Your task to perform on an android device: open app "Expedia: Hotels, Flights & Car" (install if not already installed) and go to login screen Image 0: 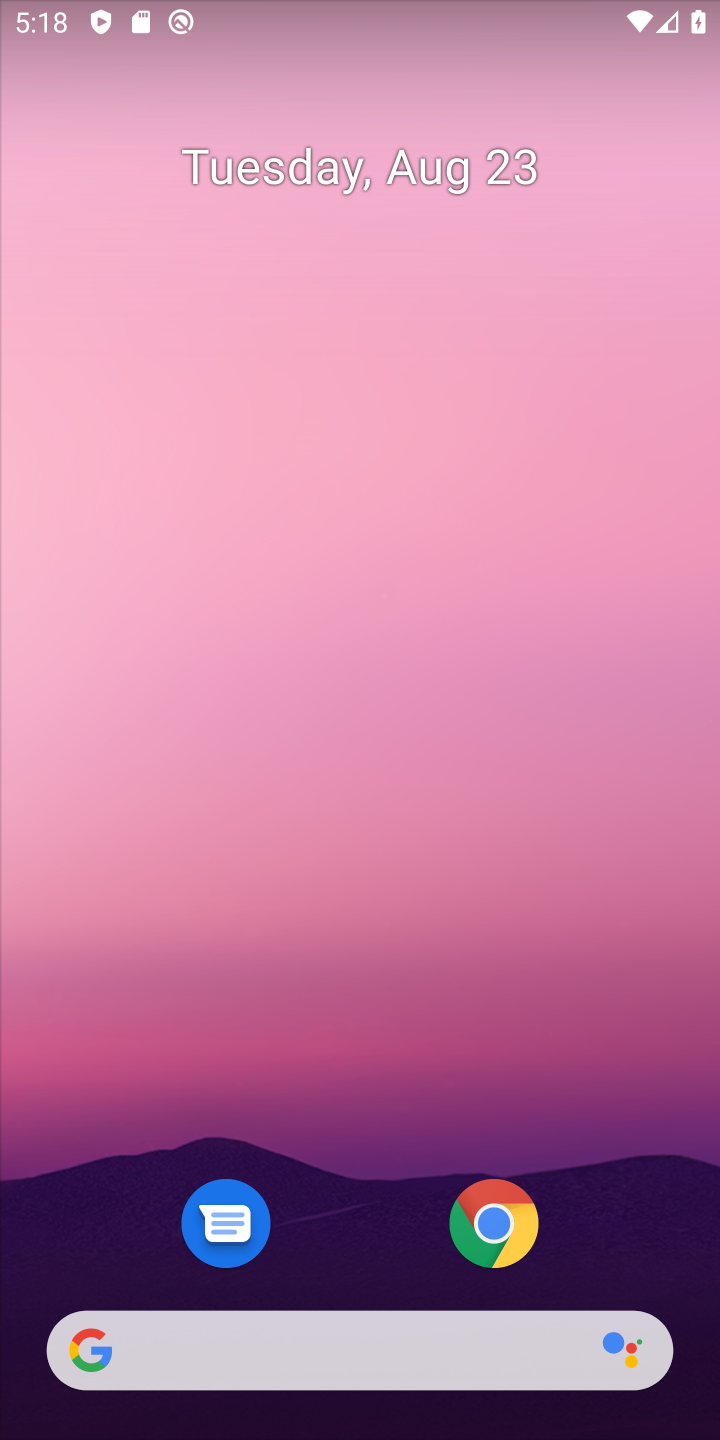
Step 0: drag from (394, 1327) to (415, 76)
Your task to perform on an android device: open app "Expedia: Hotels, Flights & Car" (install if not already installed) and go to login screen Image 1: 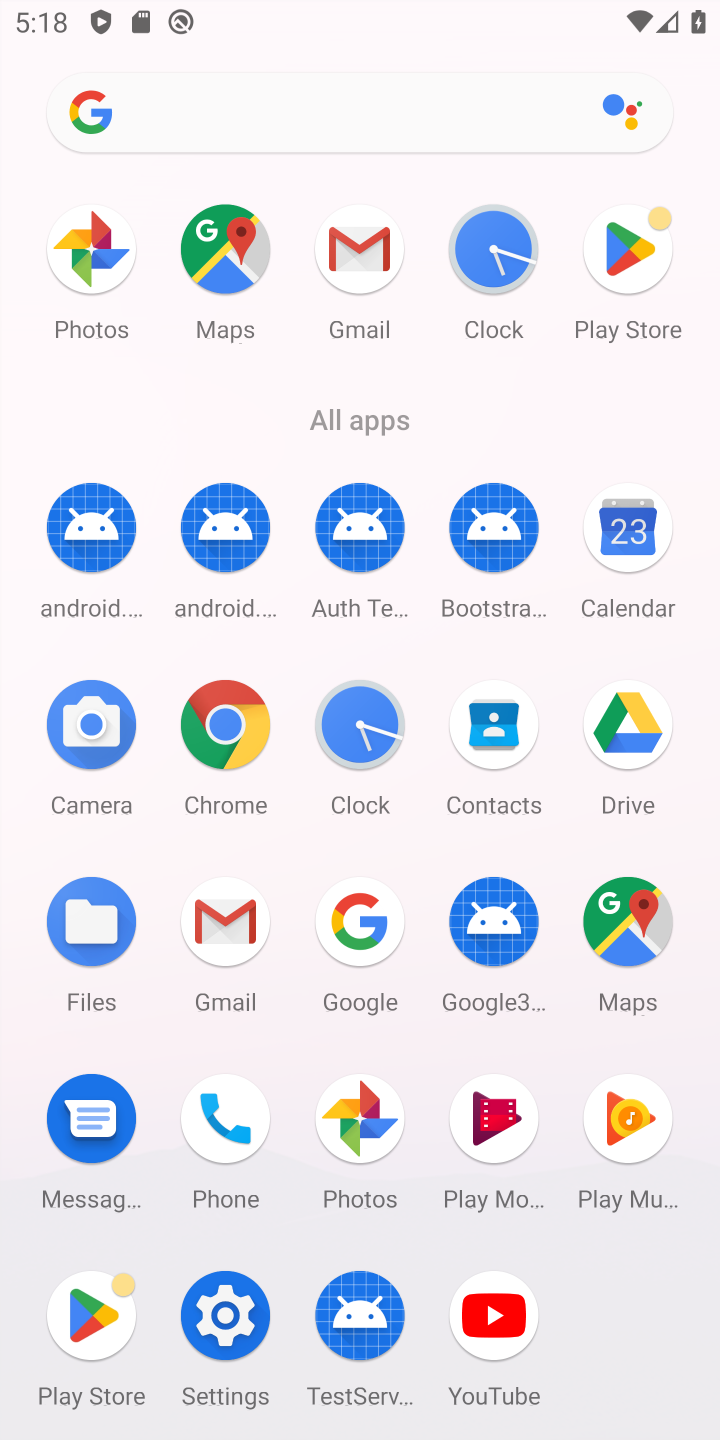
Step 1: click (637, 261)
Your task to perform on an android device: open app "Expedia: Hotels, Flights & Car" (install if not already installed) and go to login screen Image 2: 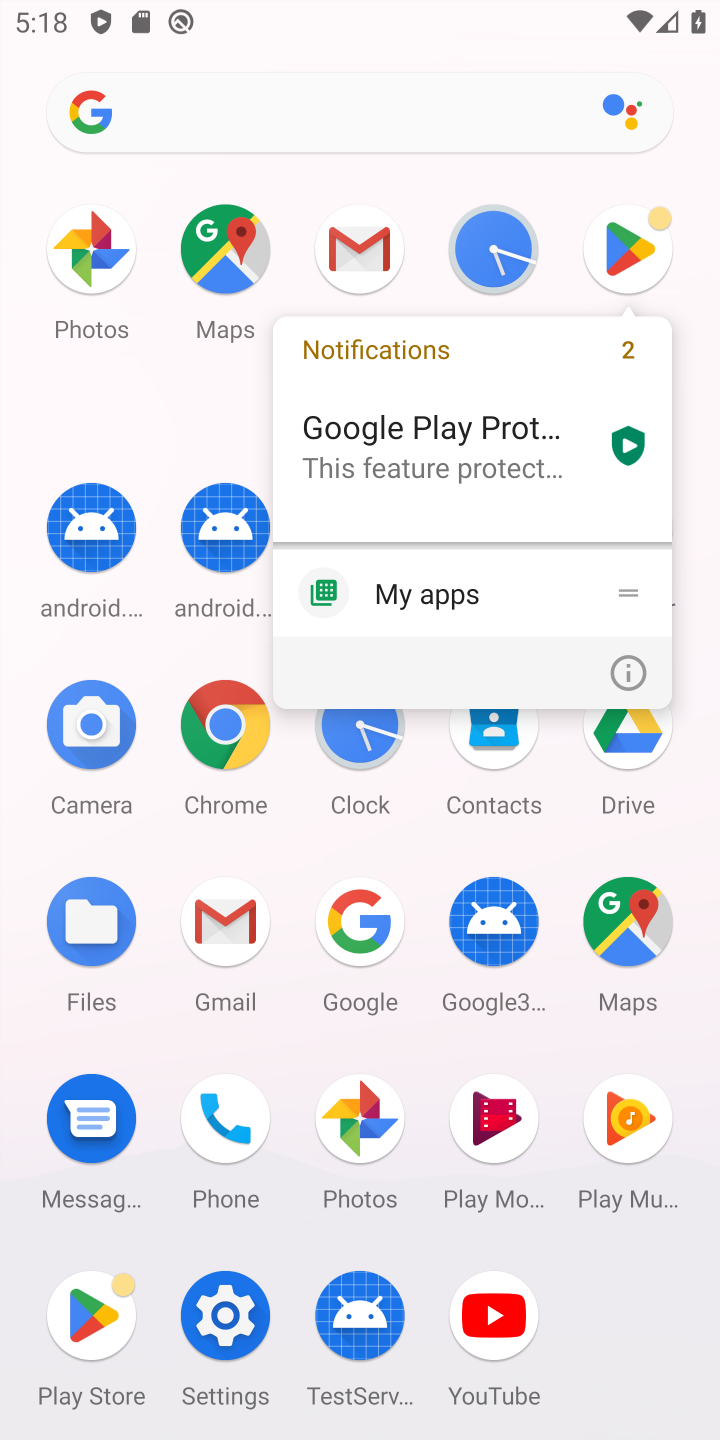
Step 2: click (632, 274)
Your task to perform on an android device: open app "Expedia: Hotels, Flights & Car" (install if not already installed) and go to login screen Image 3: 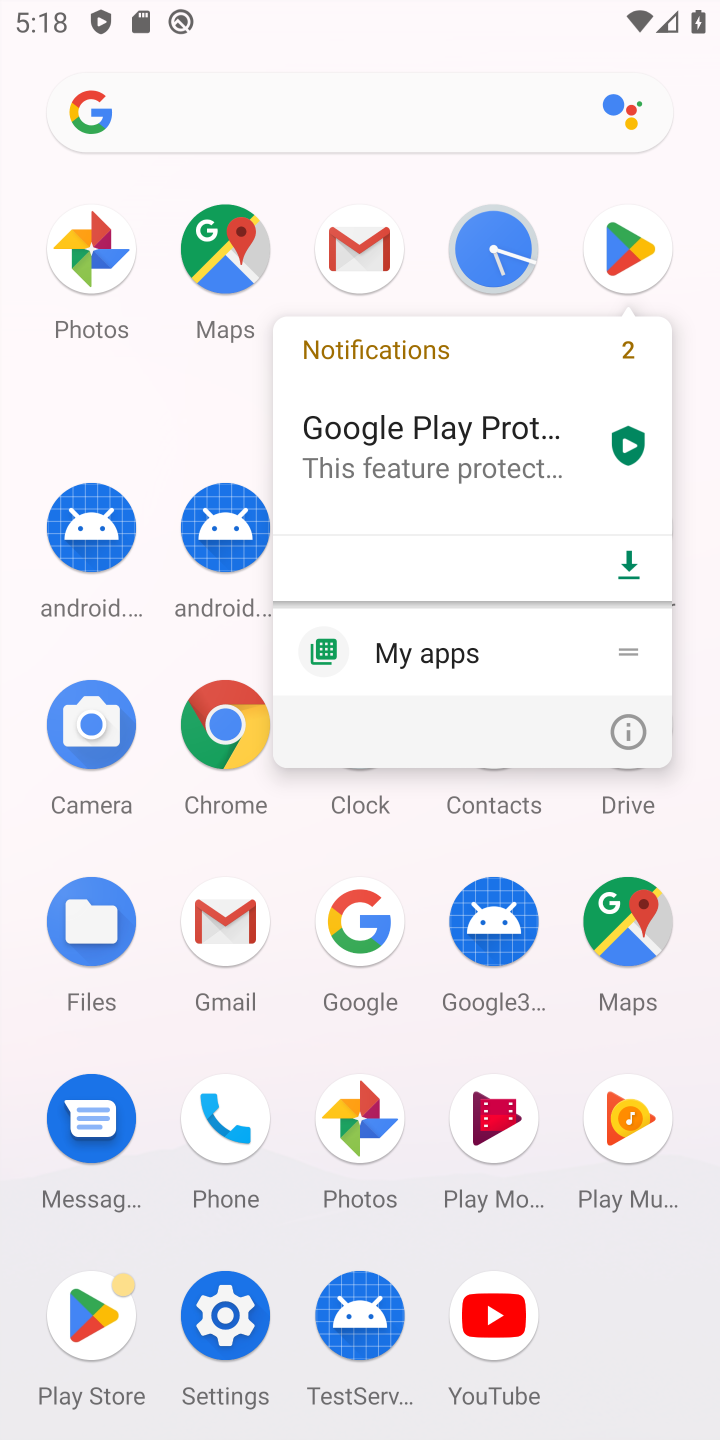
Step 3: click (611, 233)
Your task to perform on an android device: open app "Expedia: Hotels, Flights & Car" (install if not already installed) and go to login screen Image 4: 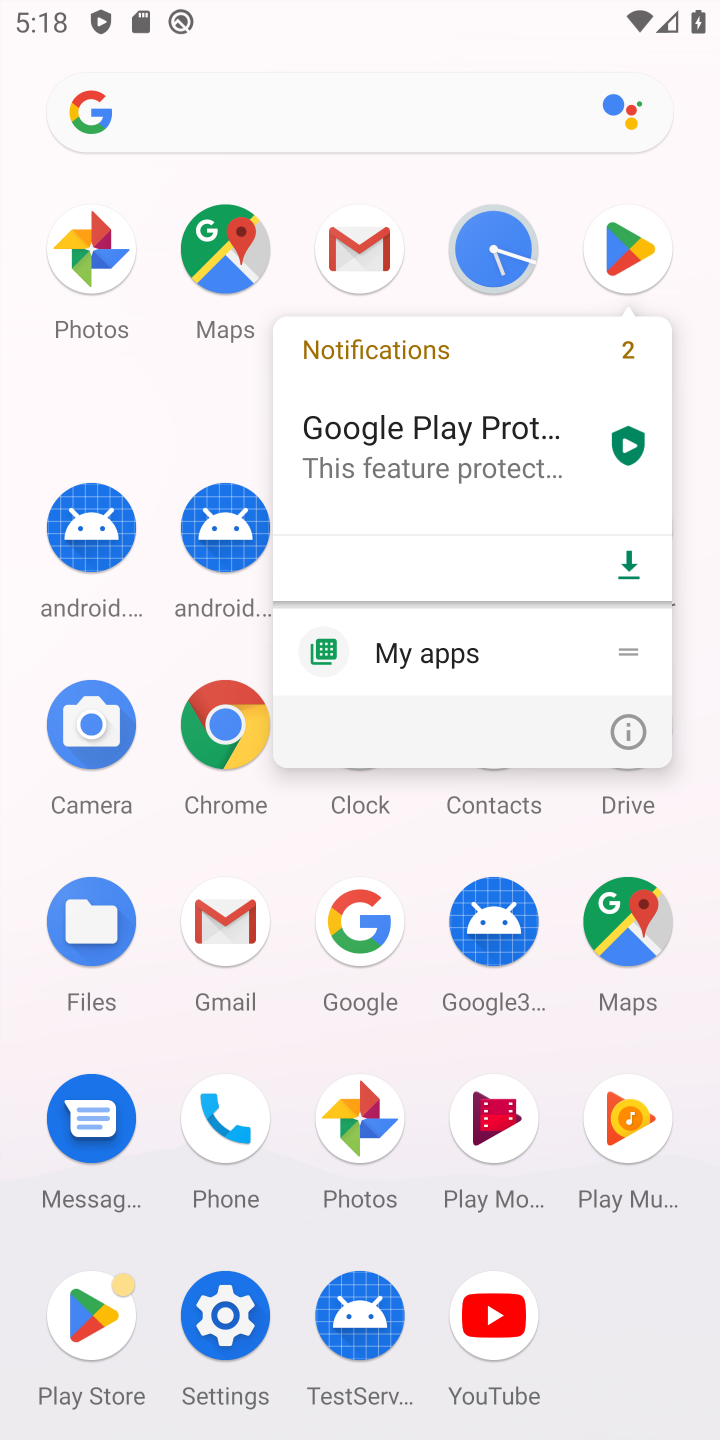
Step 4: click (614, 227)
Your task to perform on an android device: open app "Expedia: Hotels, Flights & Car" (install if not already installed) and go to login screen Image 5: 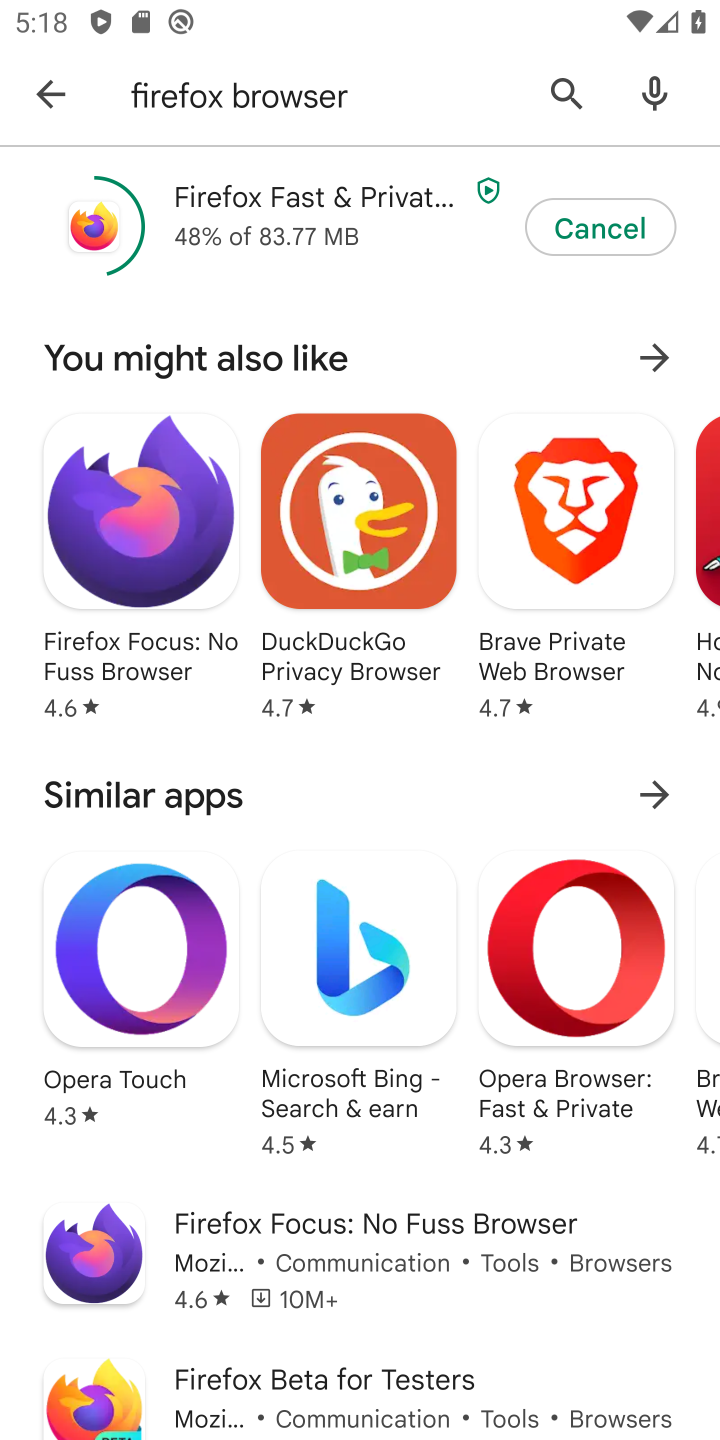
Step 5: click (552, 94)
Your task to perform on an android device: open app "Expedia: Hotels, Flights & Car" (install if not already installed) and go to login screen Image 6: 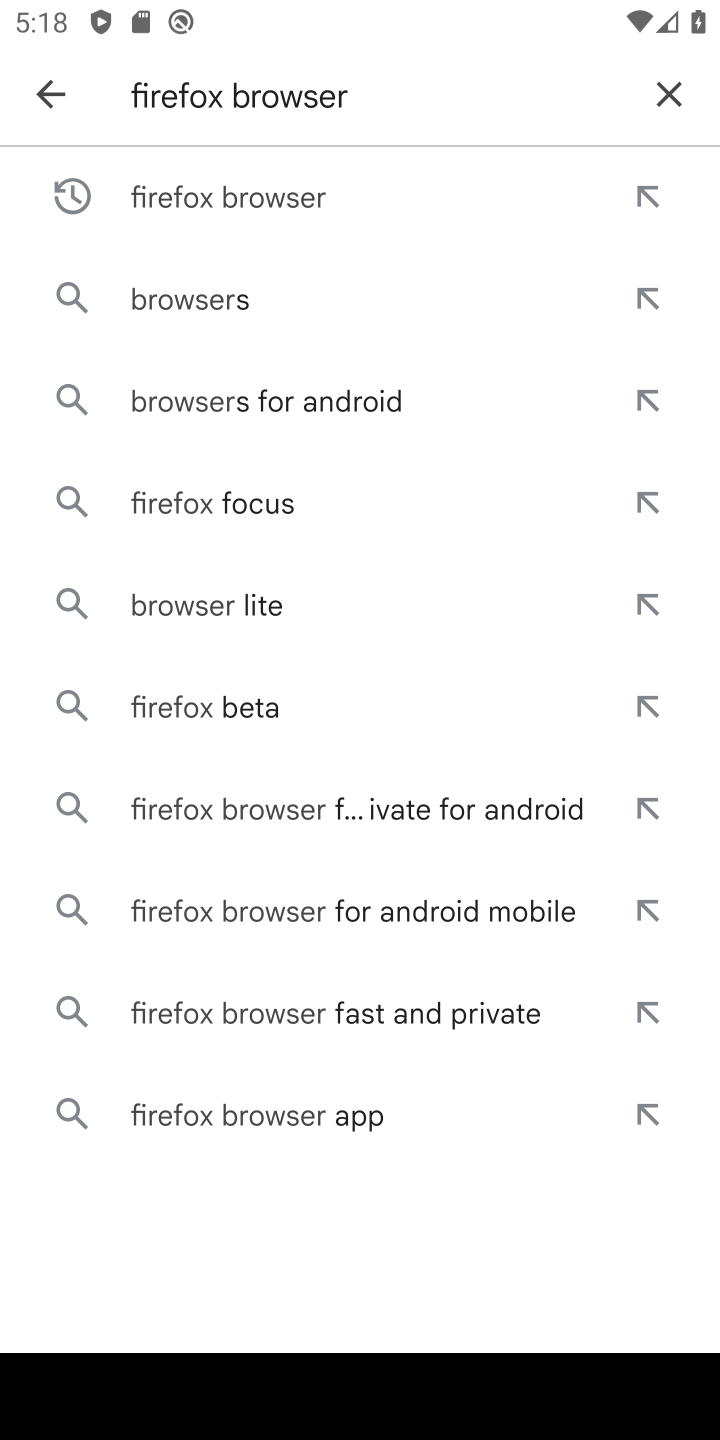
Step 6: click (664, 97)
Your task to perform on an android device: open app "Expedia: Hotels, Flights & Car" (install if not already installed) and go to login screen Image 7: 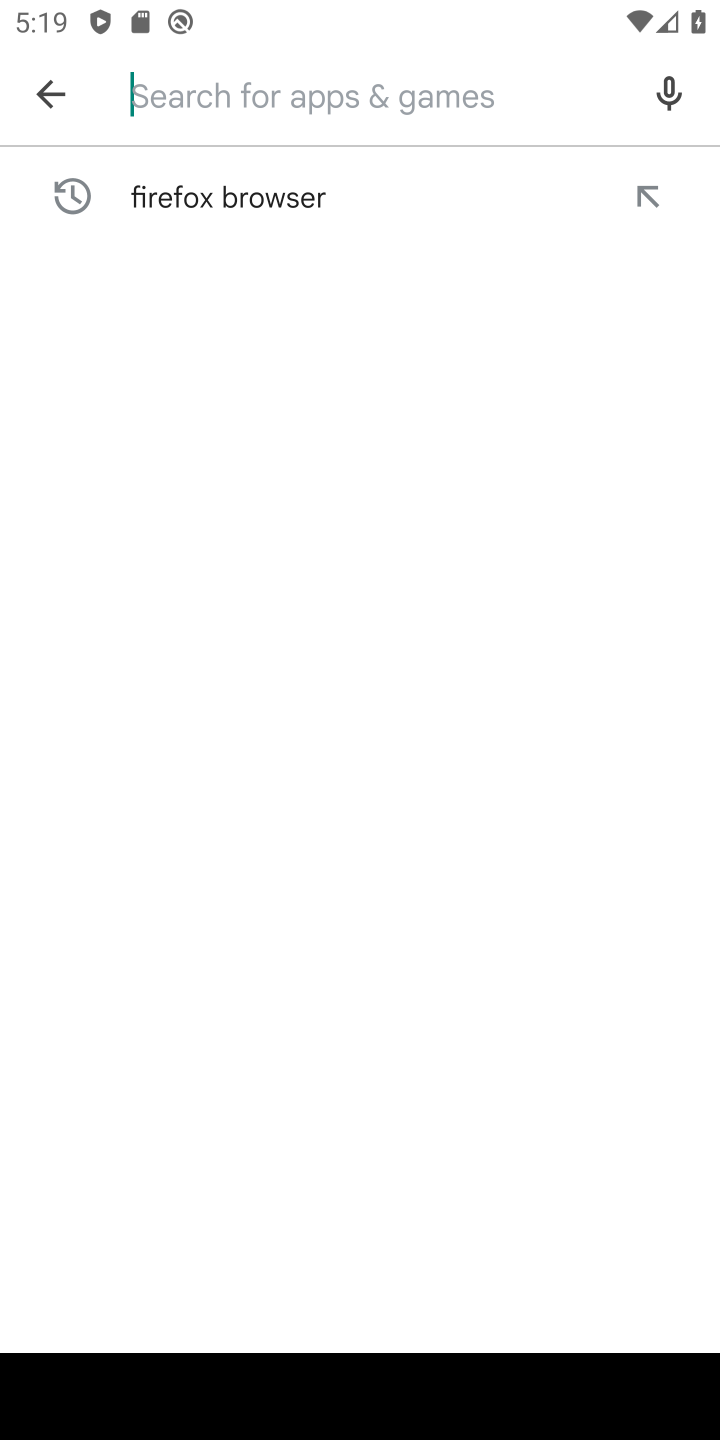
Step 7: type "expedia"
Your task to perform on an android device: open app "Expedia: Hotels, Flights & Car" (install if not already installed) and go to login screen Image 8: 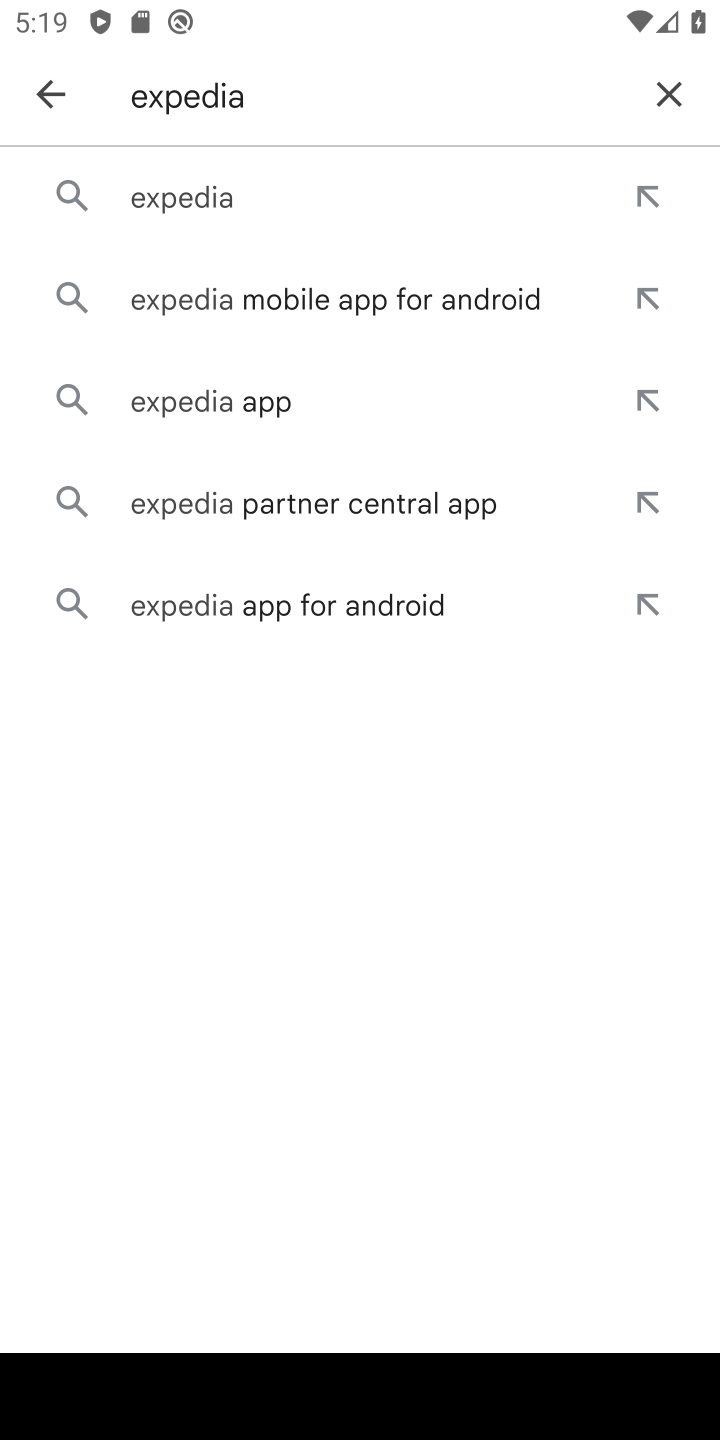
Step 8: click (286, 180)
Your task to perform on an android device: open app "Expedia: Hotels, Flights & Car" (install if not already installed) and go to login screen Image 9: 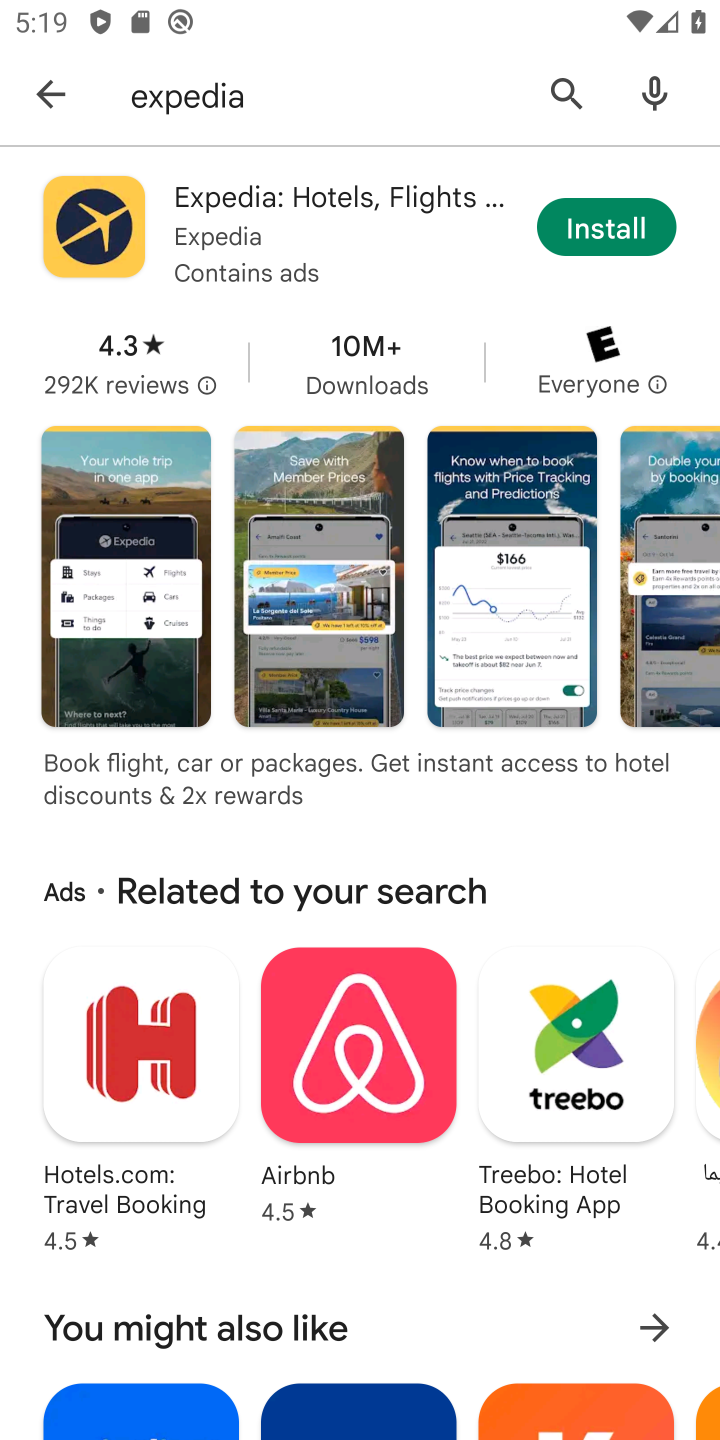
Step 9: click (605, 236)
Your task to perform on an android device: open app "Expedia: Hotels, Flights & Car" (install if not already installed) and go to login screen Image 10: 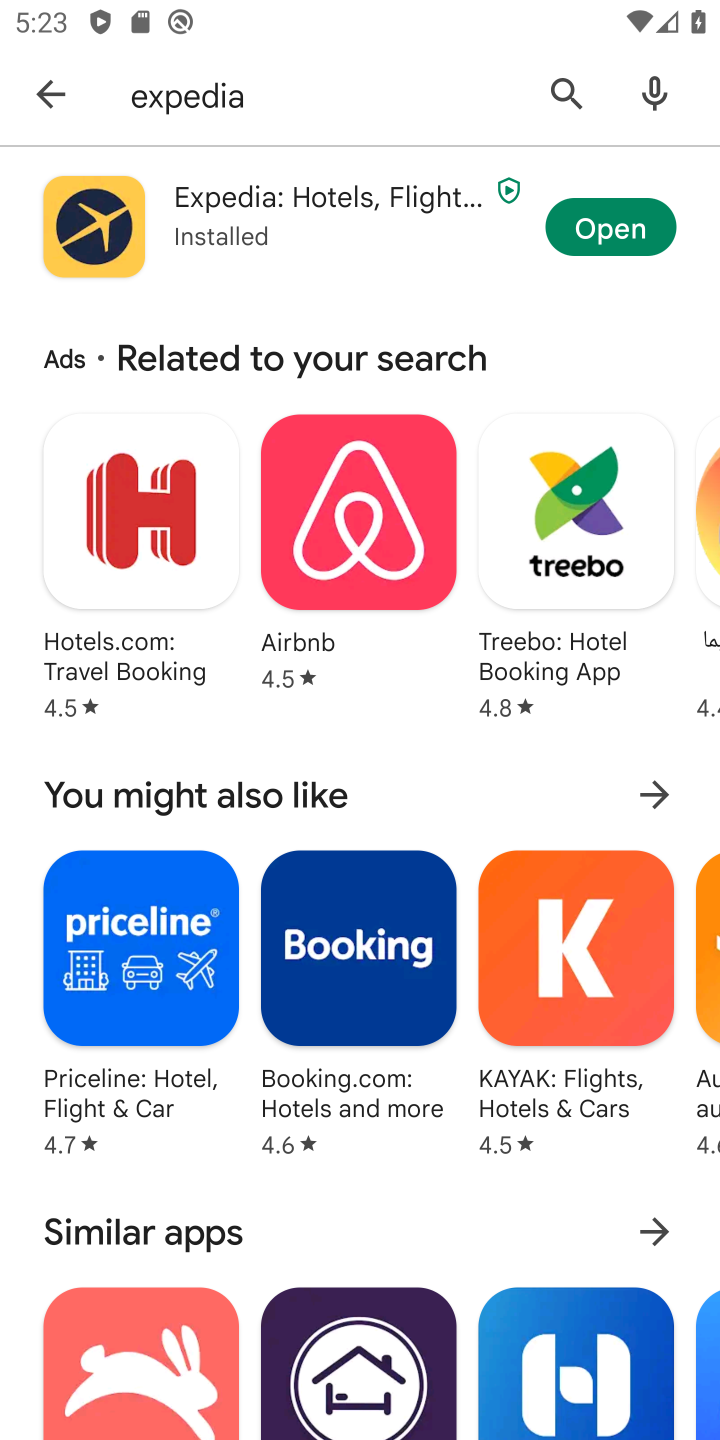
Step 10: click (672, 222)
Your task to perform on an android device: open app "Expedia: Hotels, Flights & Car" (install if not already installed) and go to login screen Image 11: 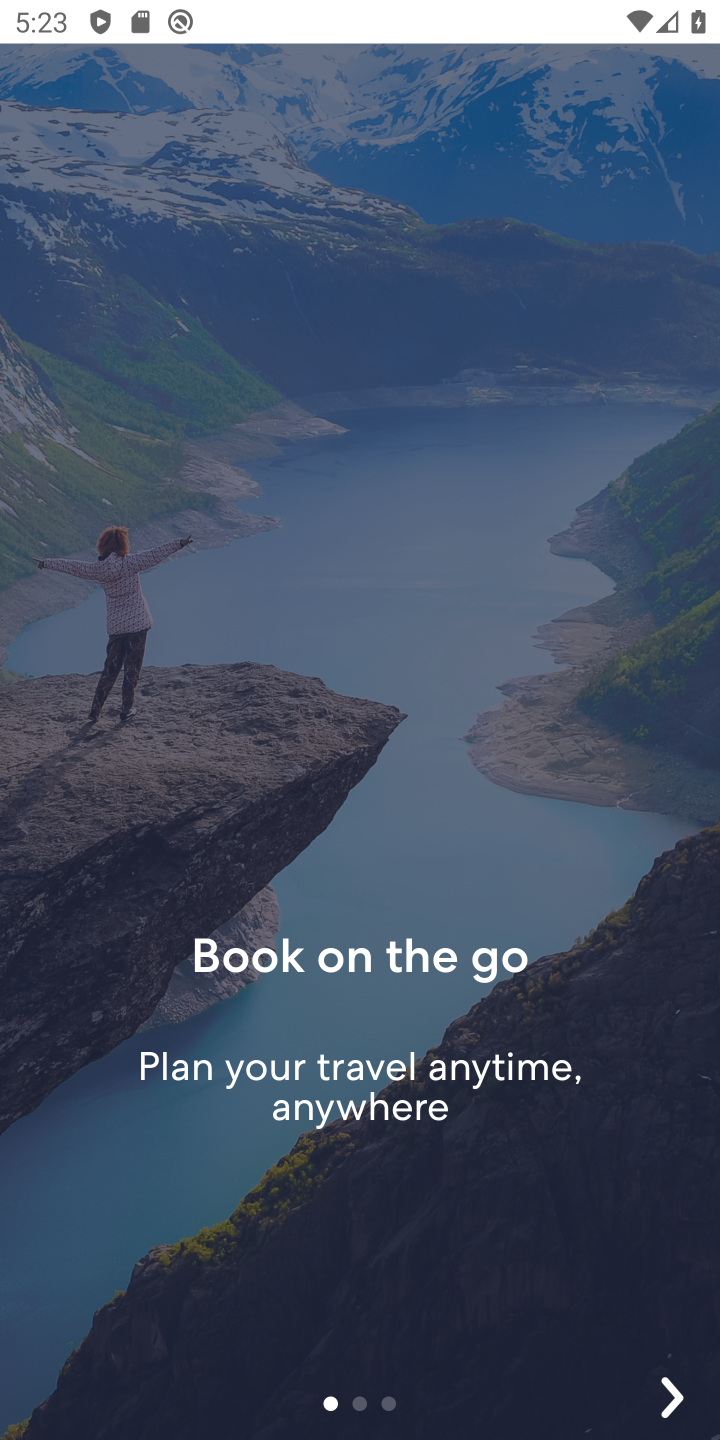
Step 11: click (648, 1412)
Your task to perform on an android device: open app "Expedia: Hotels, Flights & Car" (install if not already installed) and go to login screen Image 12: 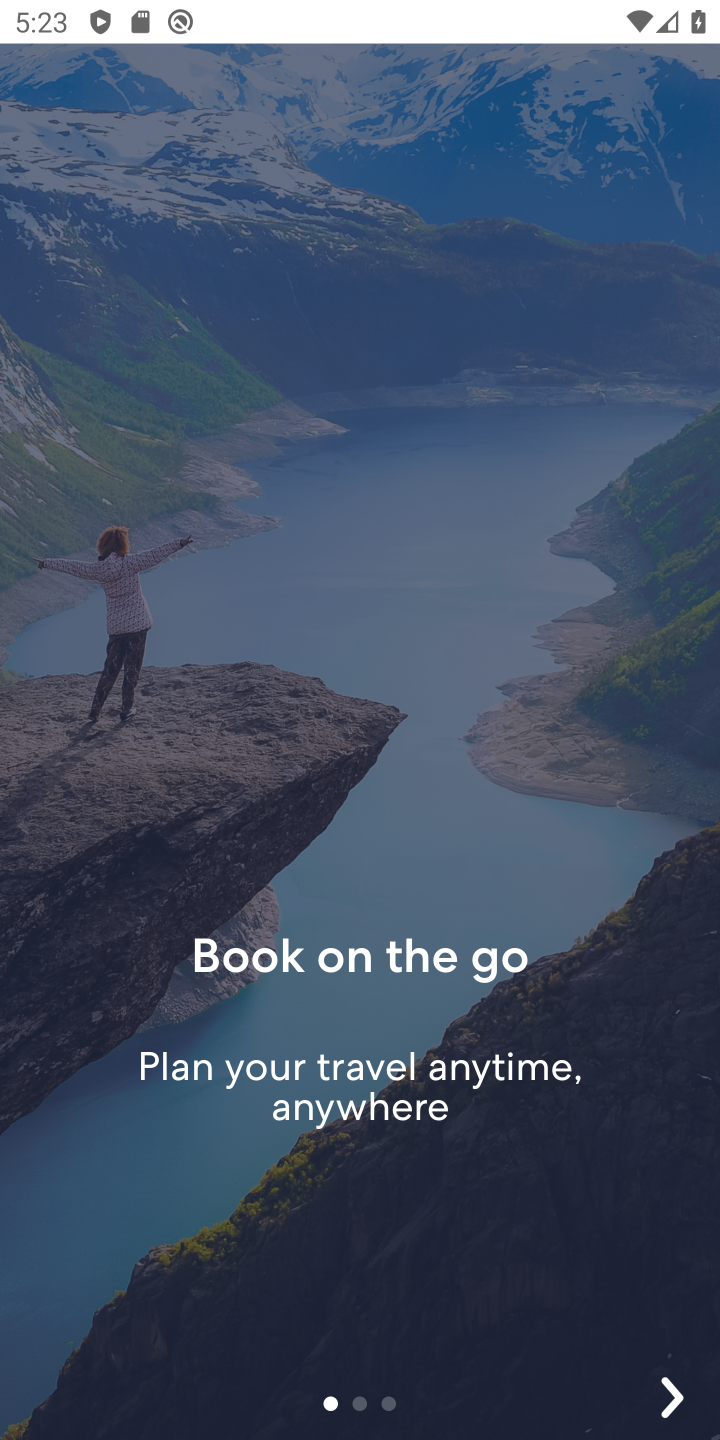
Step 12: click (668, 1407)
Your task to perform on an android device: open app "Expedia: Hotels, Flights & Car" (install if not already installed) and go to login screen Image 13: 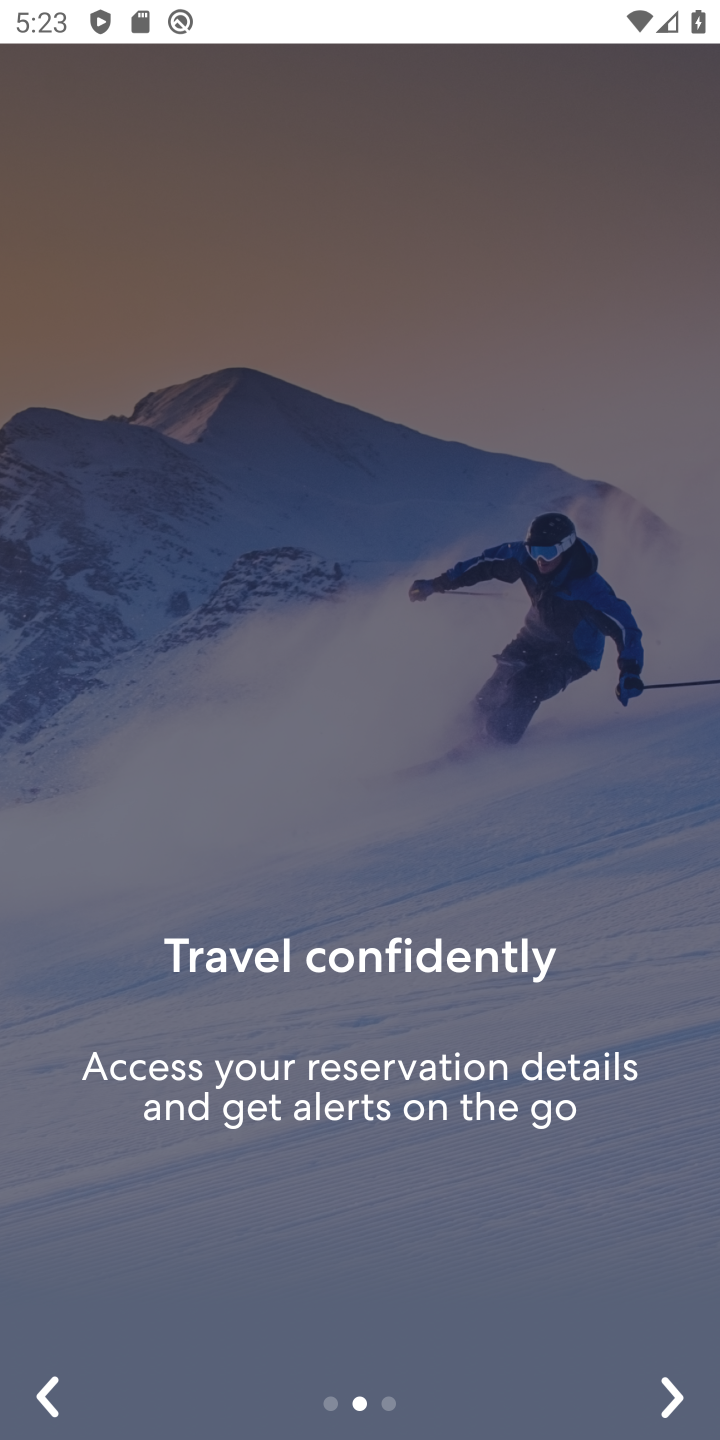
Step 13: click (668, 1407)
Your task to perform on an android device: open app "Expedia: Hotels, Flights & Car" (install if not already installed) and go to login screen Image 14: 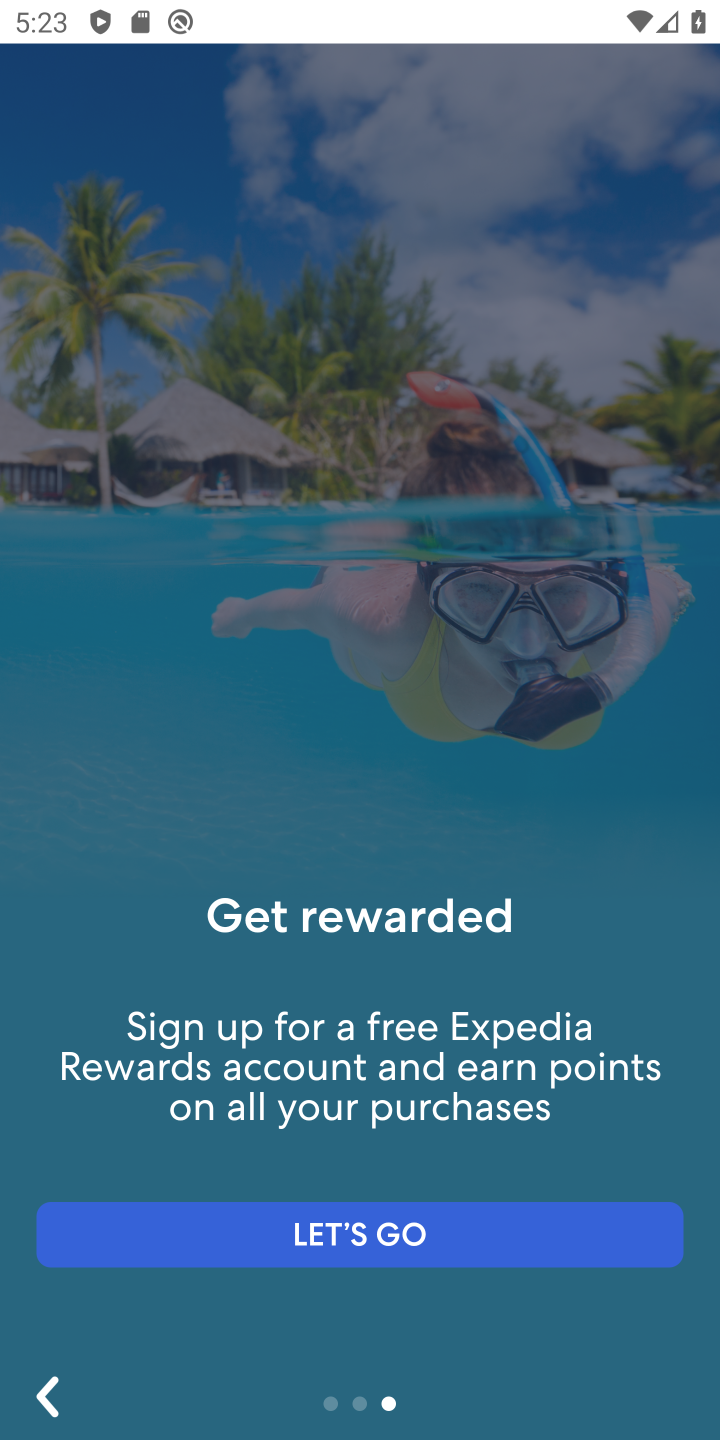
Step 14: click (451, 1260)
Your task to perform on an android device: open app "Expedia: Hotels, Flights & Car" (install if not already installed) and go to login screen Image 15: 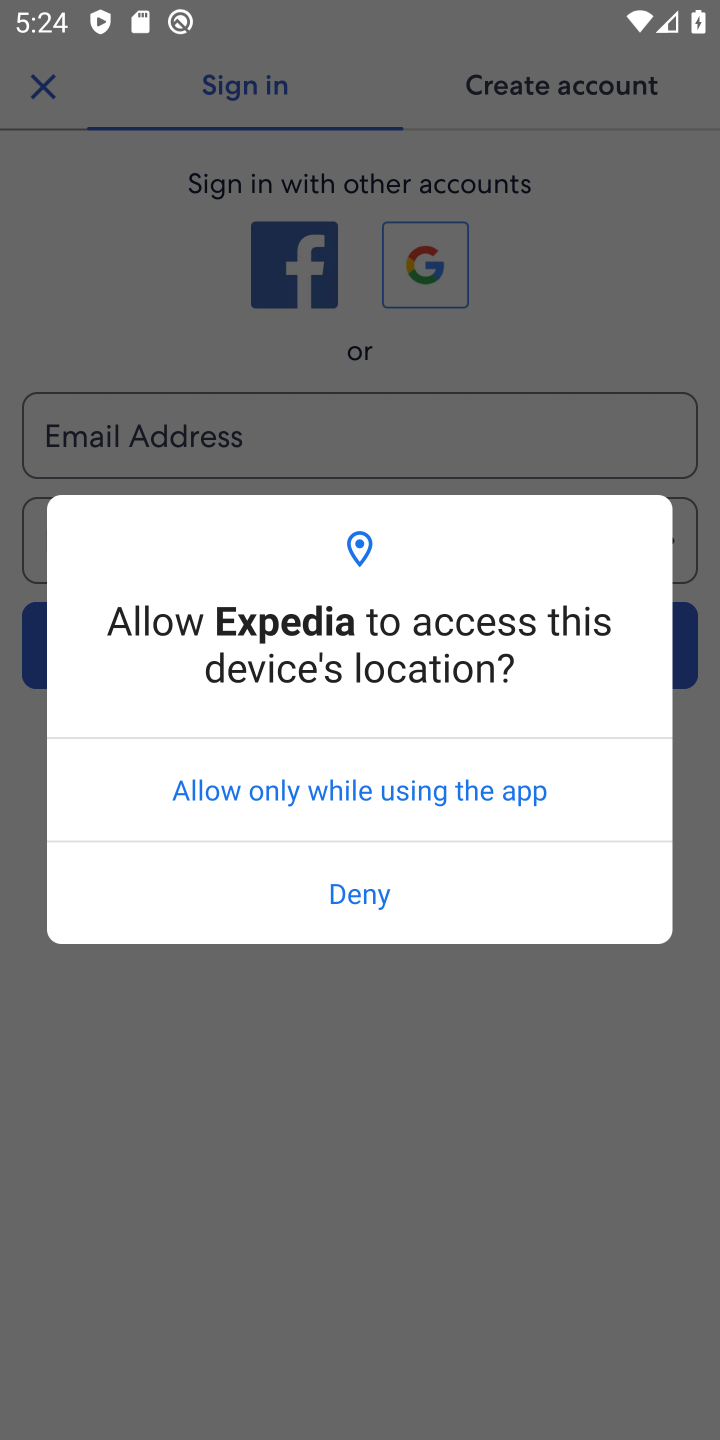
Step 15: click (392, 798)
Your task to perform on an android device: open app "Expedia: Hotels, Flights & Car" (install if not already installed) and go to login screen Image 16: 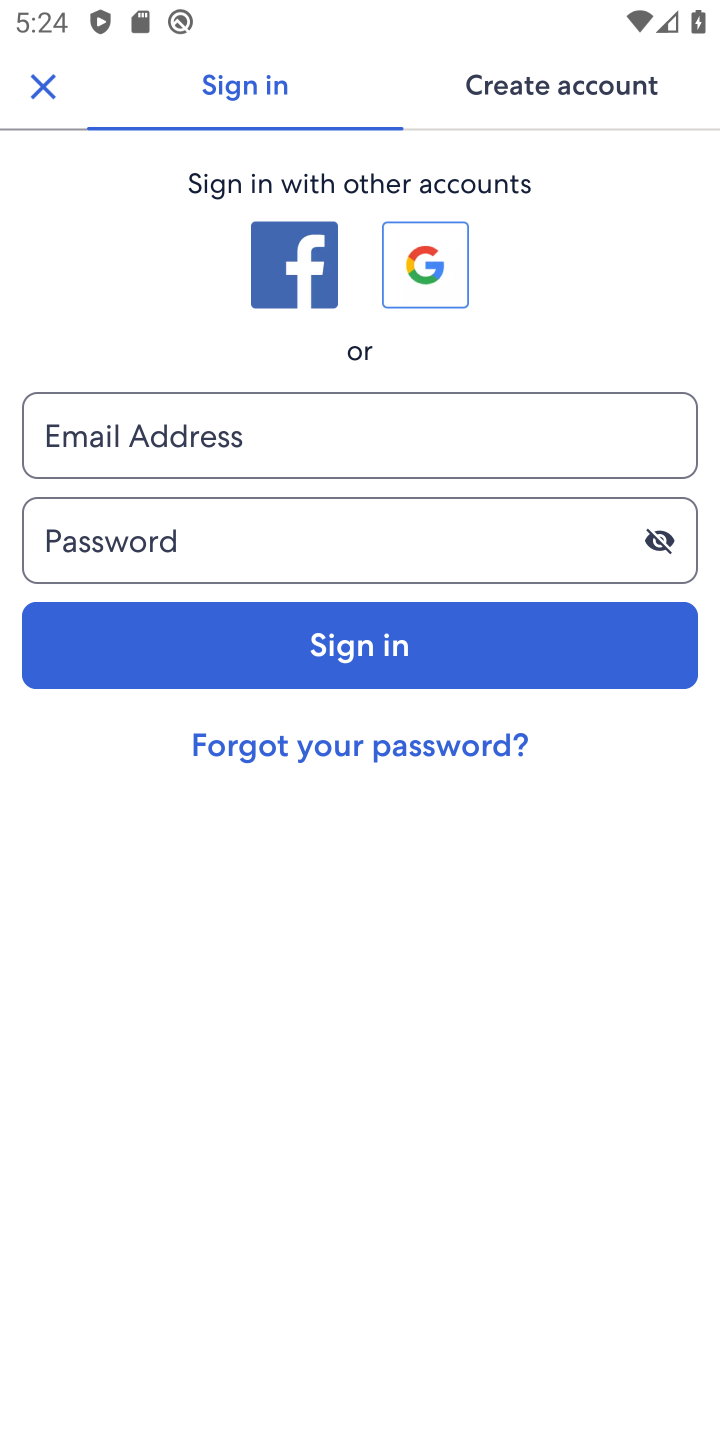
Step 16: task complete